Your task to perform on an android device: Go to sound settings Image 0: 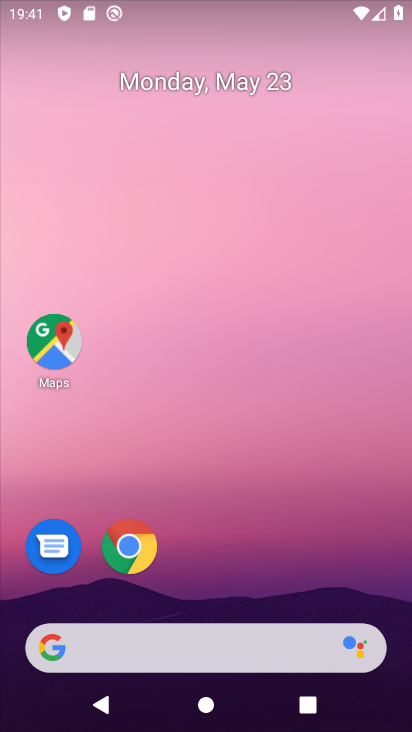
Step 0: drag from (394, 605) to (398, 223)
Your task to perform on an android device: Go to sound settings Image 1: 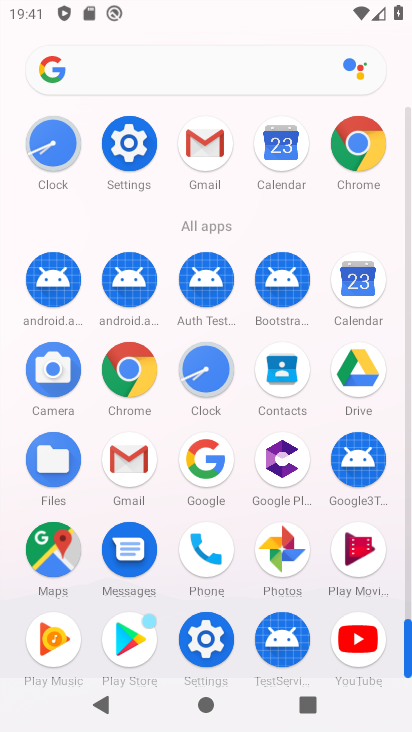
Step 1: click (216, 654)
Your task to perform on an android device: Go to sound settings Image 2: 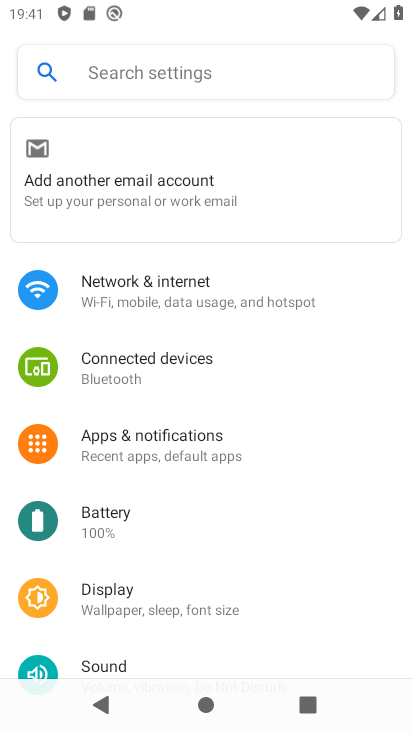
Step 2: drag from (351, 612) to (357, 522)
Your task to perform on an android device: Go to sound settings Image 3: 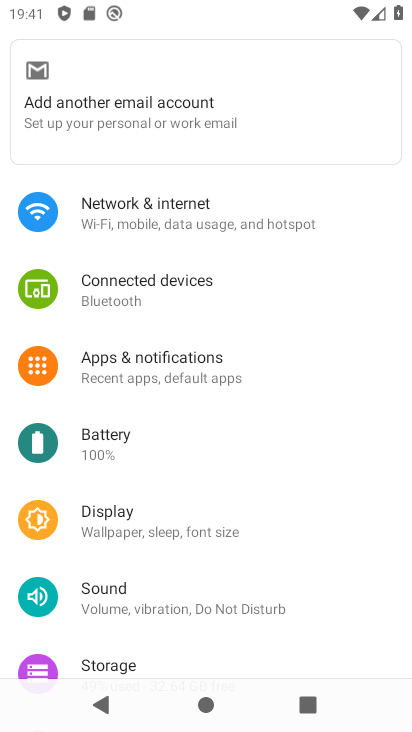
Step 3: drag from (370, 625) to (371, 533)
Your task to perform on an android device: Go to sound settings Image 4: 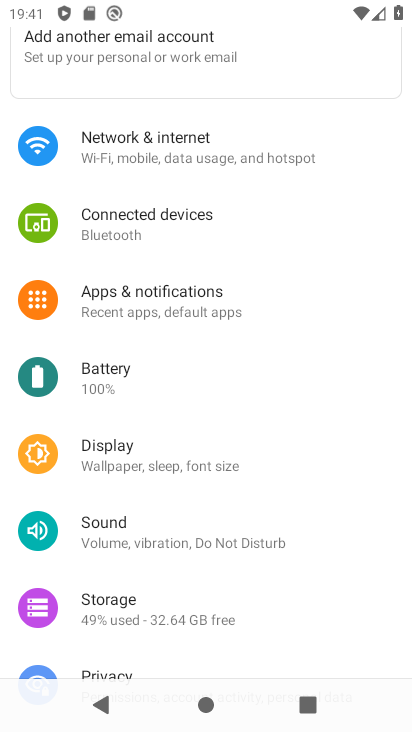
Step 4: drag from (365, 622) to (368, 531)
Your task to perform on an android device: Go to sound settings Image 5: 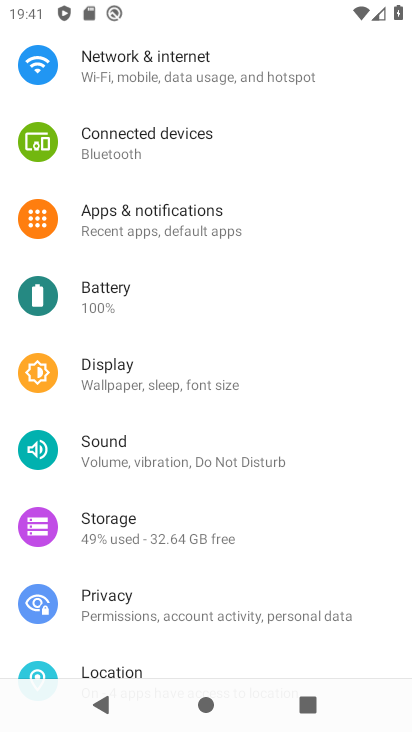
Step 5: drag from (386, 620) to (387, 540)
Your task to perform on an android device: Go to sound settings Image 6: 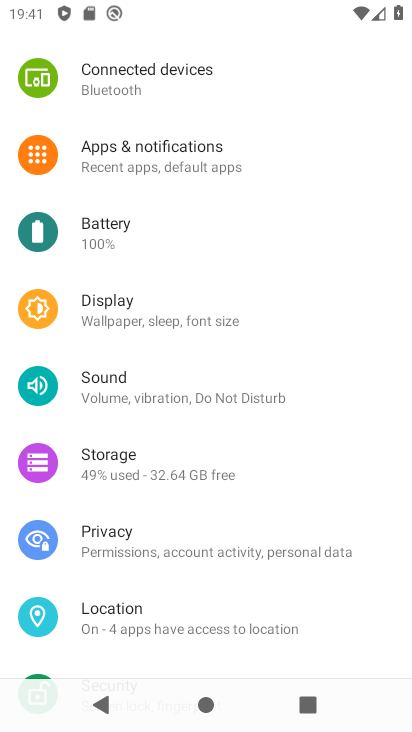
Step 6: drag from (371, 621) to (373, 533)
Your task to perform on an android device: Go to sound settings Image 7: 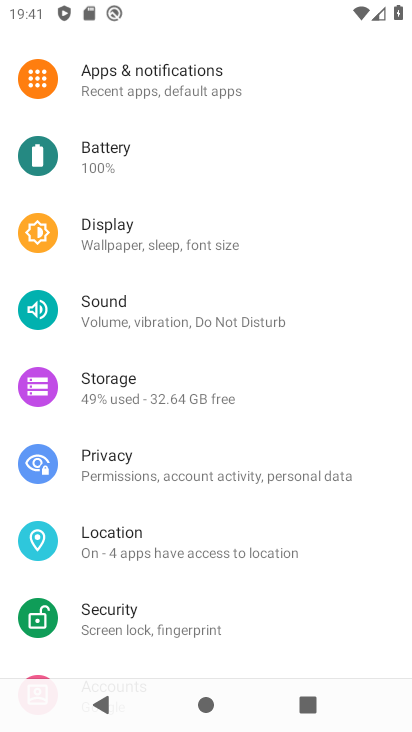
Step 7: drag from (371, 634) to (373, 547)
Your task to perform on an android device: Go to sound settings Image 8: 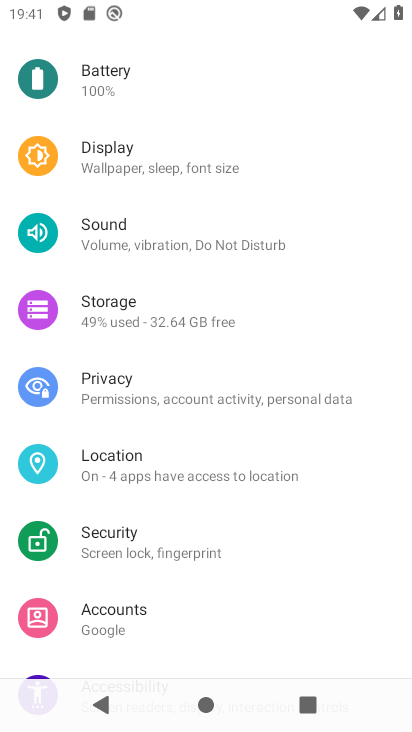
Step 8: drag from (371, 637) to (367, 556)
Your task to perform on an android device: Go to sound settings Image 9: 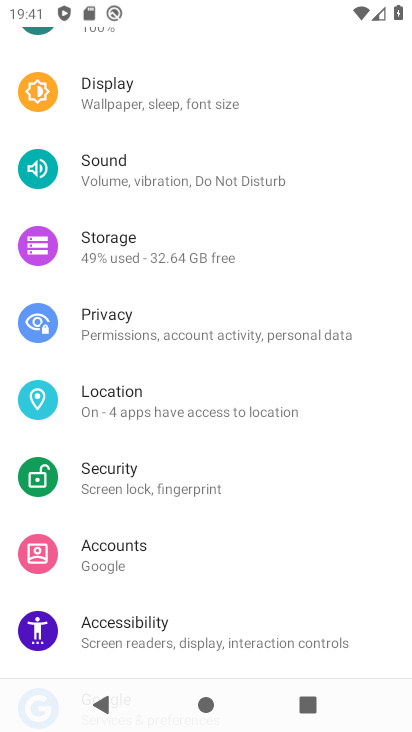
Step 9: drag from (371, 645) to (372, 519)
Your task to perform on an android device: Go to sound settings Image 10: 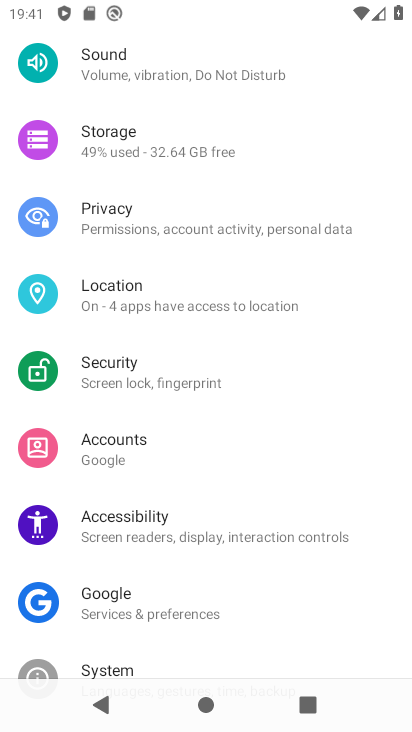
Step 10: drag from (375, 612) to (377, 510)
Your task to perform on an android device: Go to sound settings Image 11: 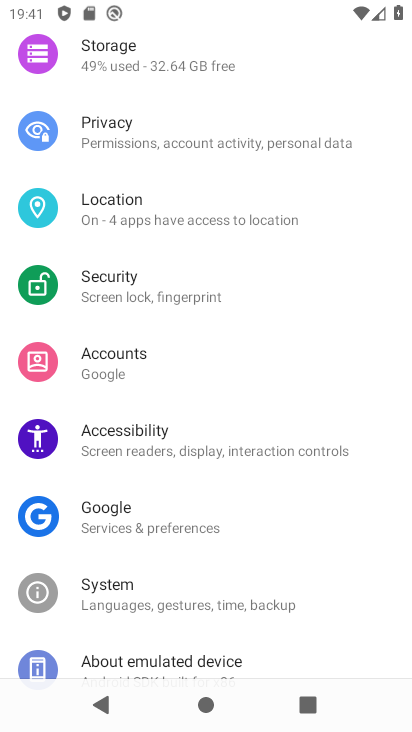
Step 11: drag from (373, 475) to (366, 543)
Your task to perform on an android device: Go to sound settings Image 12: 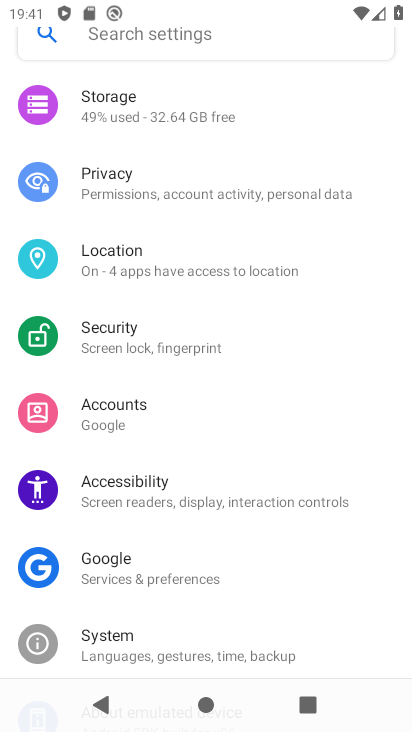
Step 12: drag from (366, 467) to (368, 532)
Your task to perform on an android device: Go to sound settings Image 13: 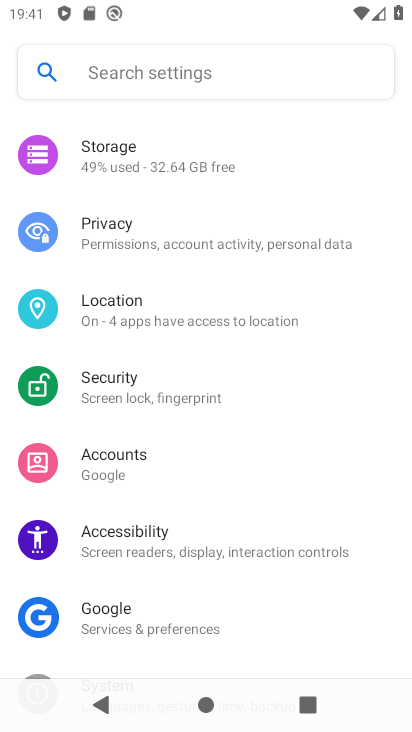
Step 13: drag from (362, 446) to (362, 532)
Your task to perform on an android device: Go to sound settings Image 14: 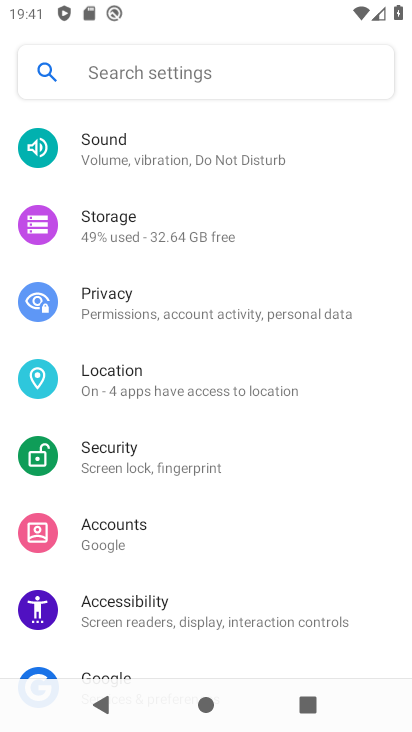
Step 14: drag from (362, 485) to (363, 550)
Your task to perform on an android device: Go to sound settings Image 15: 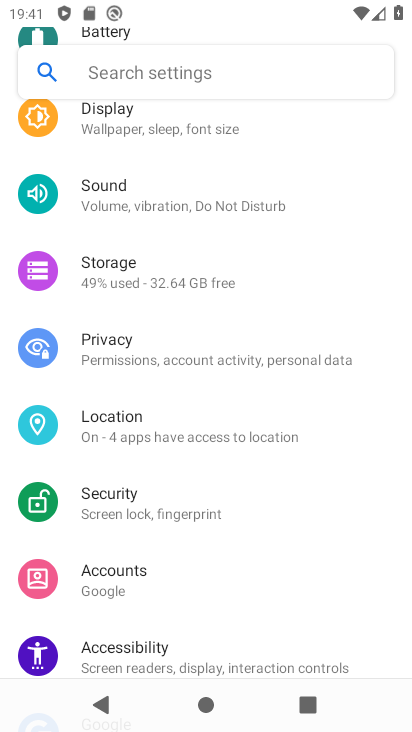
Step 15: drag from (363, 486) to (368, 582)
Your task to perform on an android device: Go to sound settings Image 16: 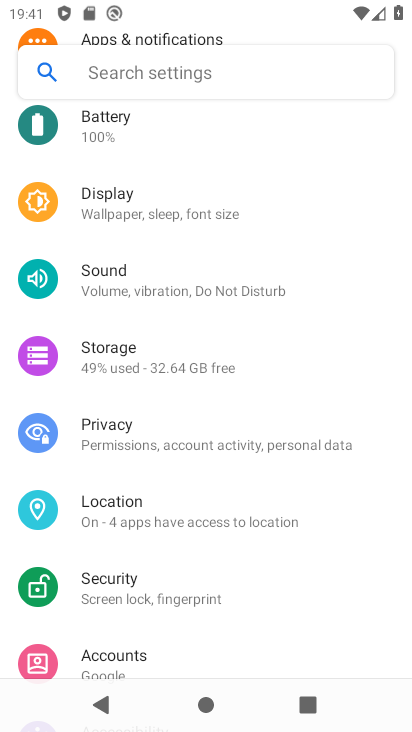
Step 16: drag from (360, 497) to (359, 583)
Your task to perform on an android device: Go to sound settings Image 17: 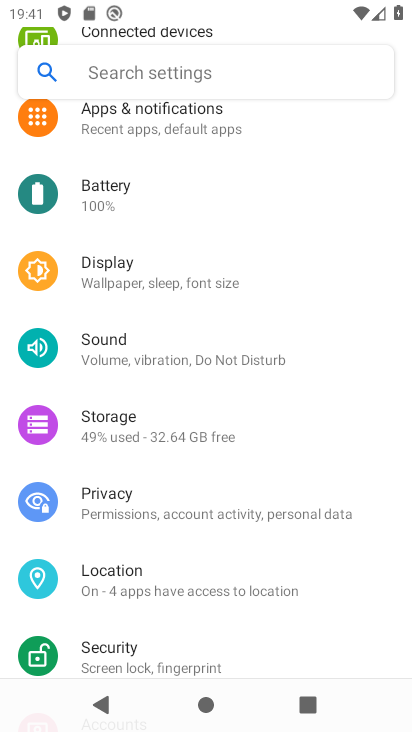
Step 17: drag from (358, 459) to (362, 550)
Your task to perform on an android device: Go to sound settings Image 18: 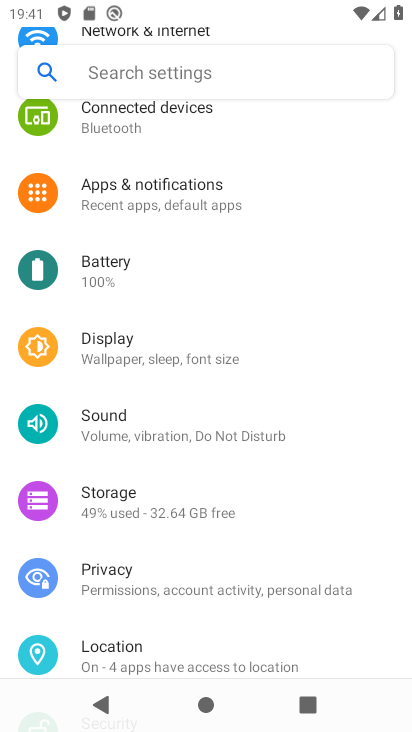
Step 18: drag from (362, 466) to (358, 552)
Your task to perform on an android device: Go to sound settings Image 19: 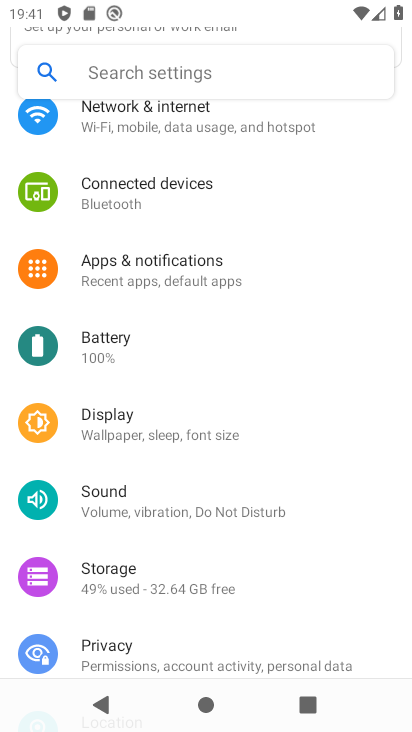
Step 19: drag from (358, 478) to (357, 620)
Your task to perform on an android device: Go to sound settings Image 20: 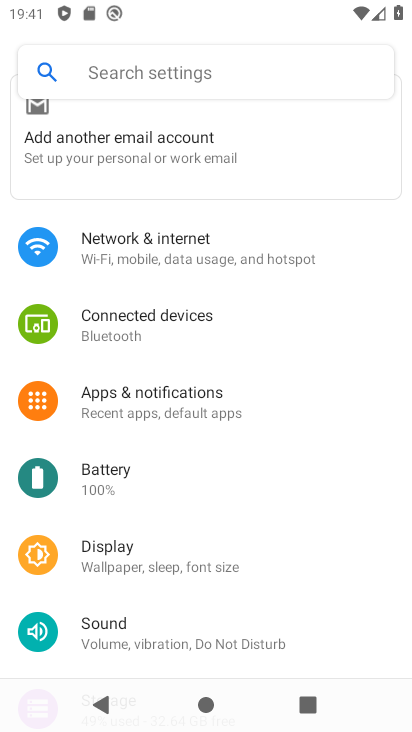
Step 20: click (286, 639)
Your task to perform on an android device: Go to sound settings Image 21: 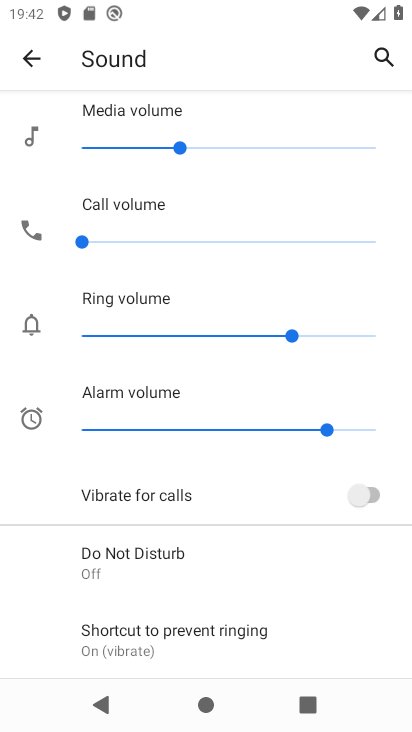
Step 21: task complete